Your task to perform on an android device: Open the web browser Image 0: 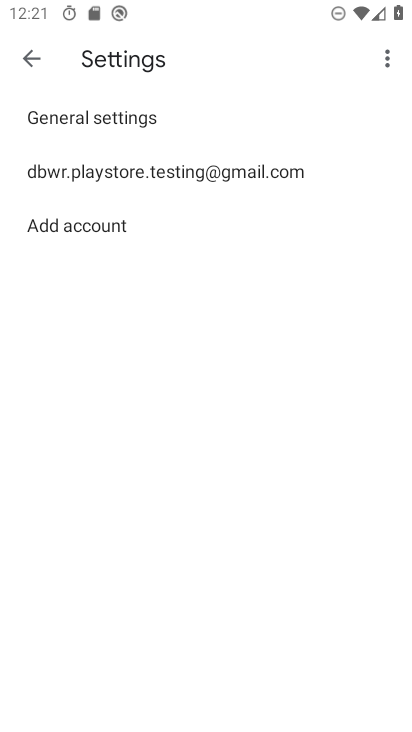
Step 0: press home button
Your task to perform on an android device: Open the web browser Image 1: 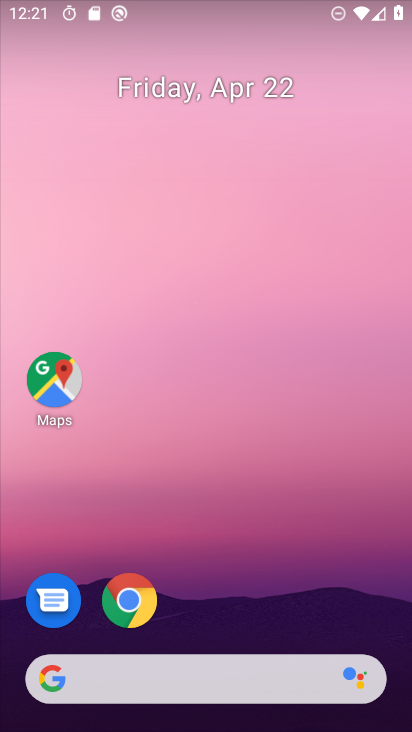
Step 1: click (131, 602)
Your task to perform on an android device: Open the web browser Image 2: 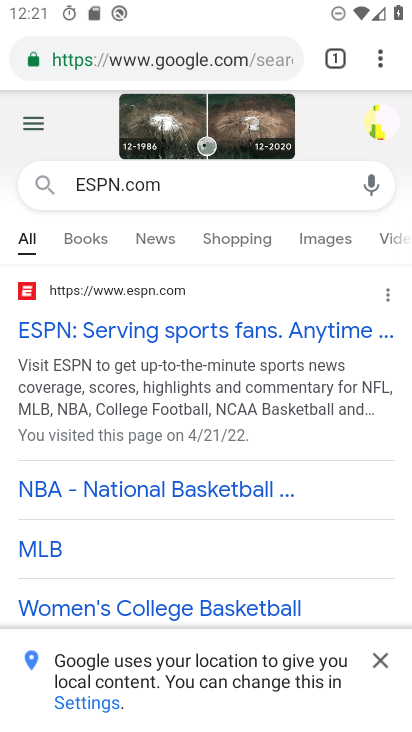
Step 2: task complete